Your task to perform on an android device: change notification settings in the gmail app Image 0: 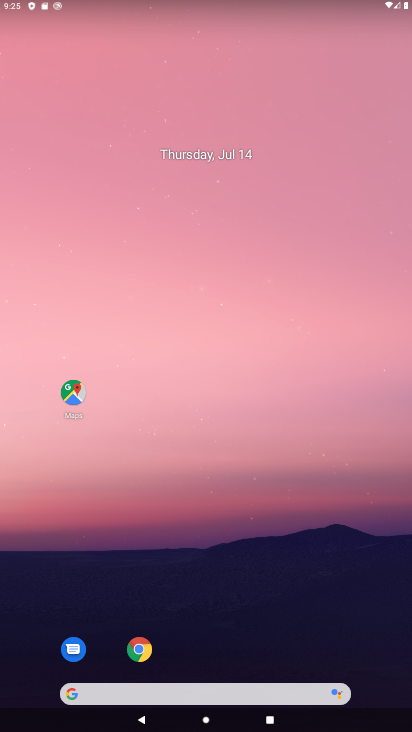
Step 0: drag from (199, 604) to (199, 323)
Your task to perform on an android device: change notification settings in the gmail app Image 1: 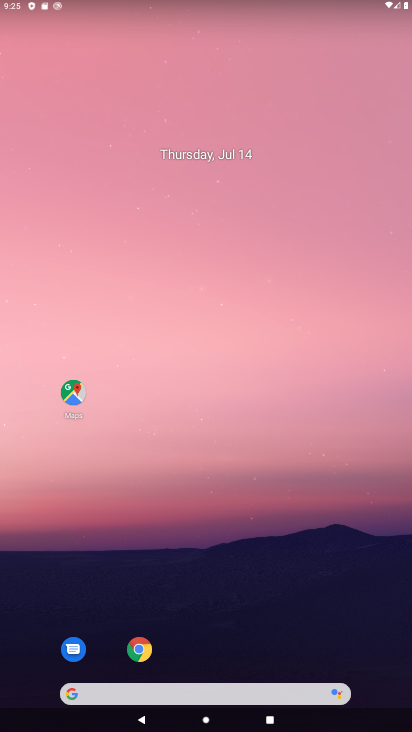
Step 1: drag from (208, 634) to (246, 150)
Your task to perform on an android device: change notification settings in the gmail app Image 2: 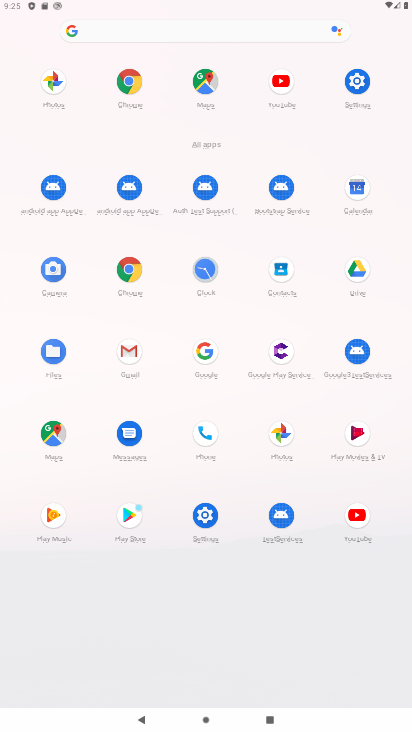
Step 2: click (123, 358)
Your task to perform on an android device: change notification settings in the gmail app Image 3: 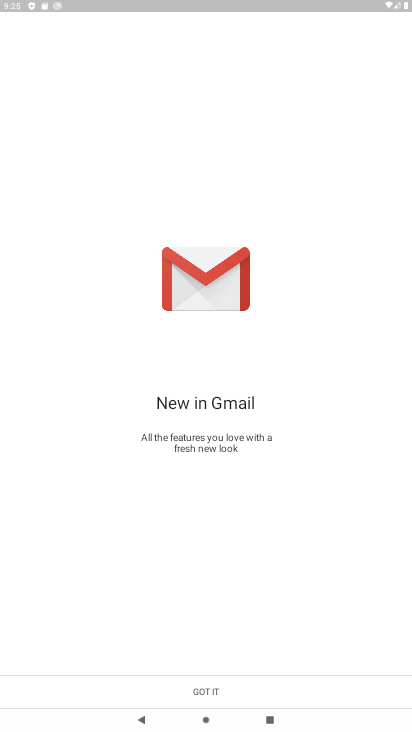
Step 3: click (217, 680)
Your task to perform on an android device: change notification settings in the gmail app Image 4: 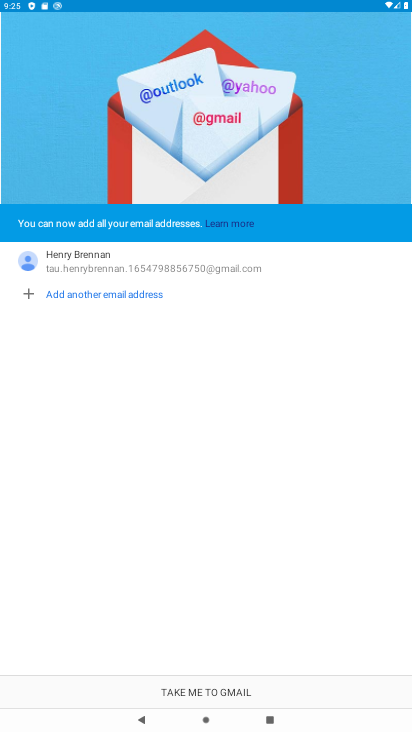
Step 4: click (217, 680)
Your task to perform on an android device: change notification settings in the gmail app Image 5: 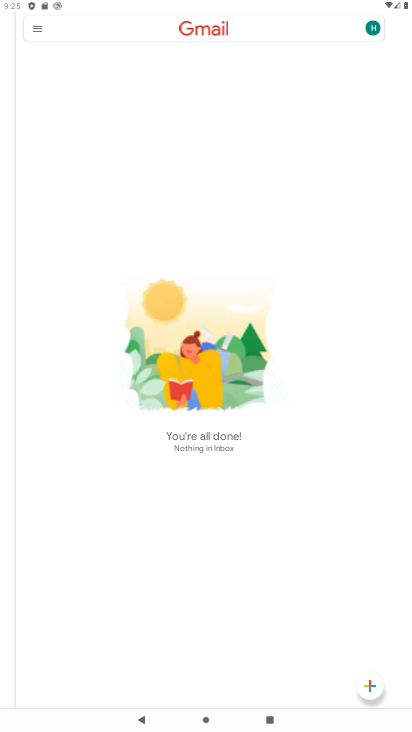
Step 5: click (363, 32)
Your task to perform on an android device: change notification settings in the gmail app Image 6: 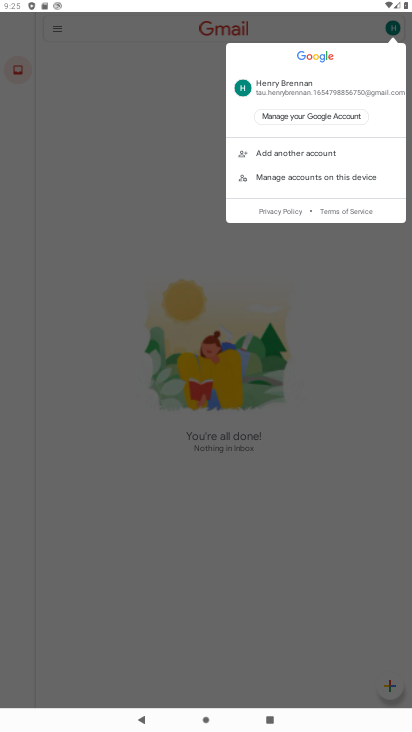
Step 6: click (363, 32)
Your task to perform on an android device: change notification settings in the gmail app Image 7: 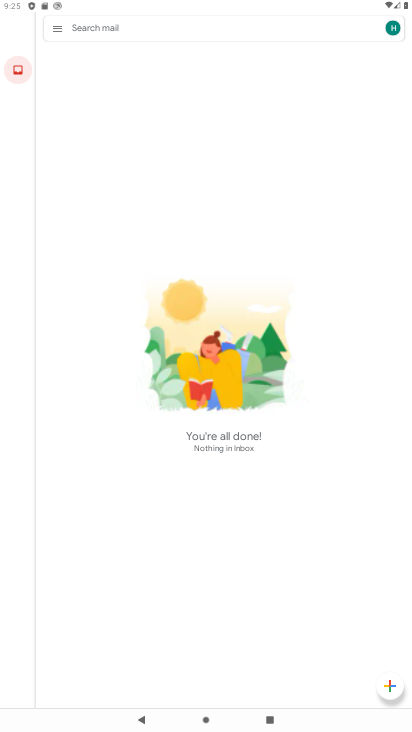
Step 7: click (396, 26)
Your task to perform on an android device: change notification settings in the gmail app Image 8: 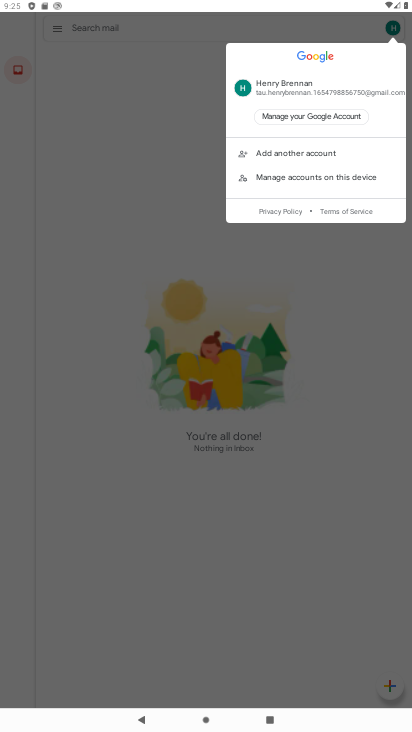
Step 8: click (60, 29)
Your task to perform on an android device: change notification settings in the gmail app Image 9: 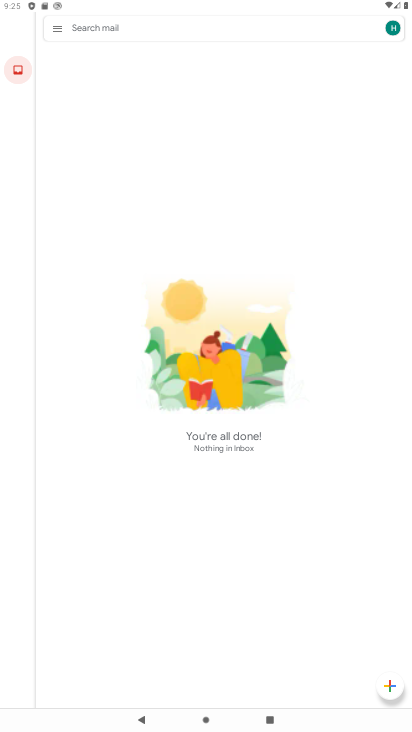
Step 9: click (60, 29)
Your task to perform on an android device: change notification settings in the gmail app Image 10: 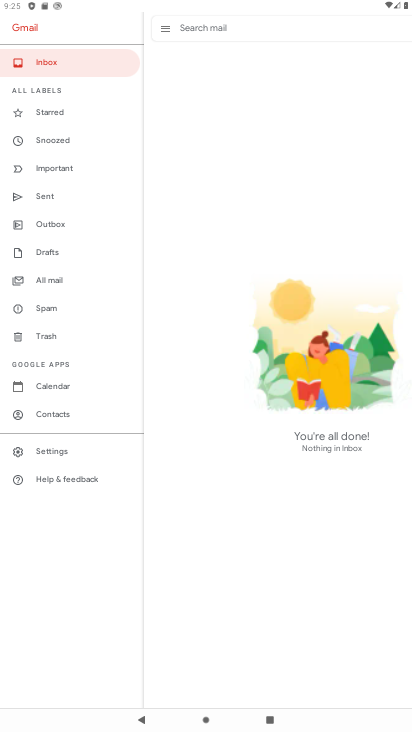
Step 10: click (60, 29)
Your task to perform on an android device: change notification settings in the gmail app Image 11: 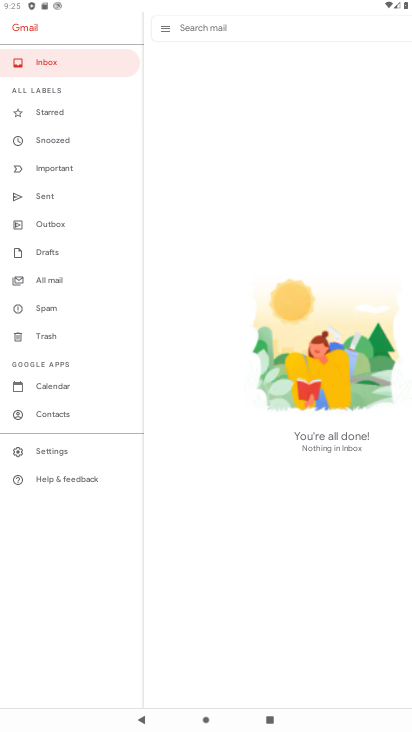
Step 11: click (62, 452)
Your task to perform on an android device: change notification settings in the gmail app Image 12: 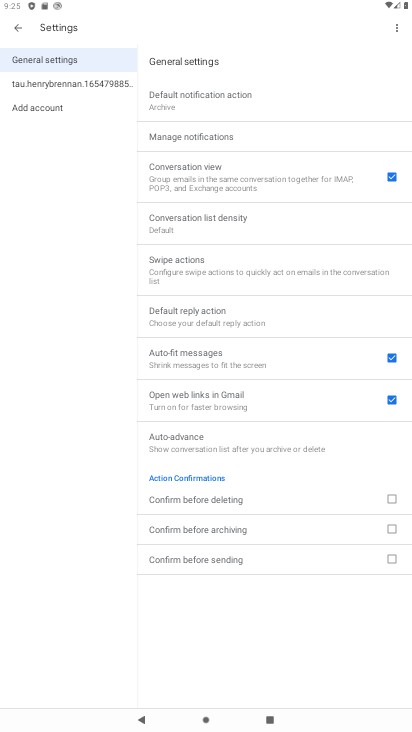
Step 12: click (207, 144)
Your task to perform on an android device: change notification settings in the gmail app Image 13: 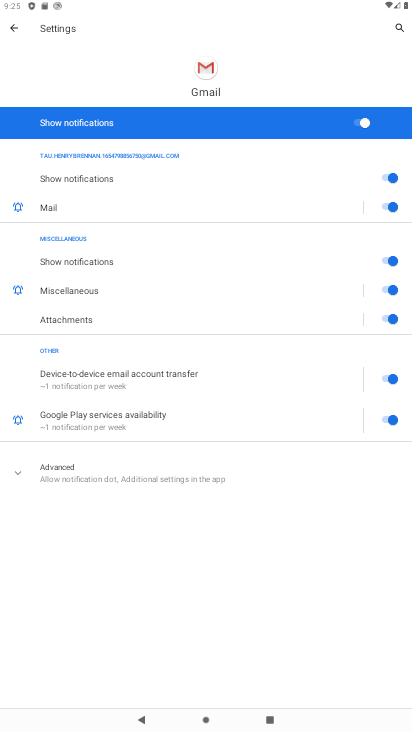
Step 13: click (360, 121)
Your task to perform on an android device: change notification settings in the gmail app Image 14: 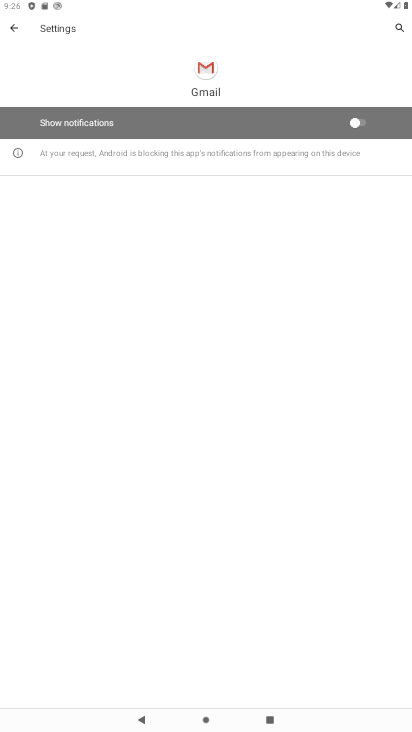
Step 14: task complete